Your task to perform on an android device: What's the news in Sri Lanka? Image 0: 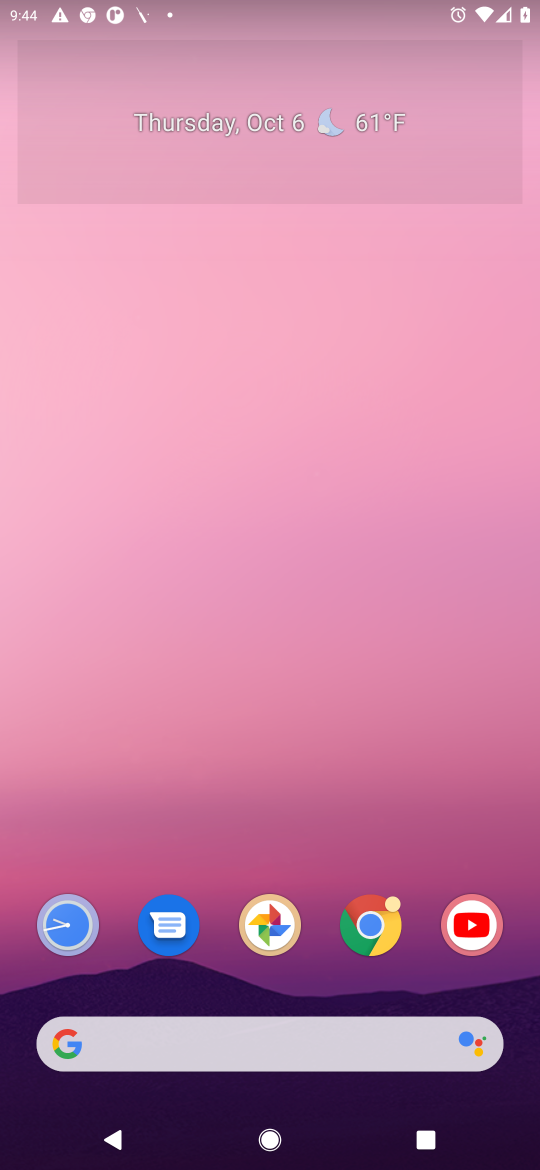
Step 0: click (372, 942)
Your task to perform on an android device: What's the news in Sri Lanka? Image 1: 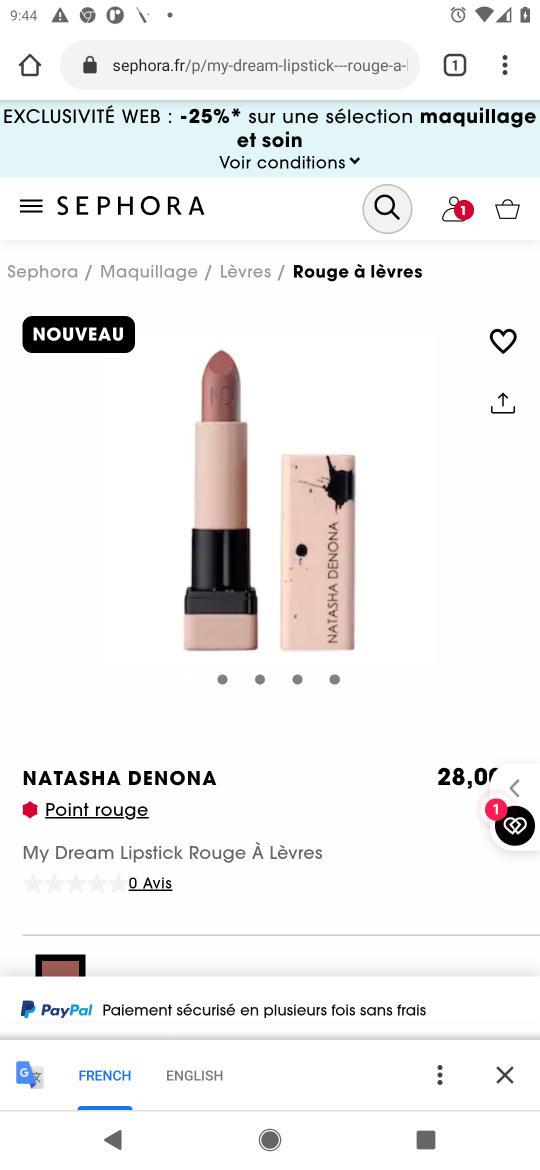
Step 1: click (295, 48)
Your task to perform on an android device: What's the news in Sri Lanka? Image 2: 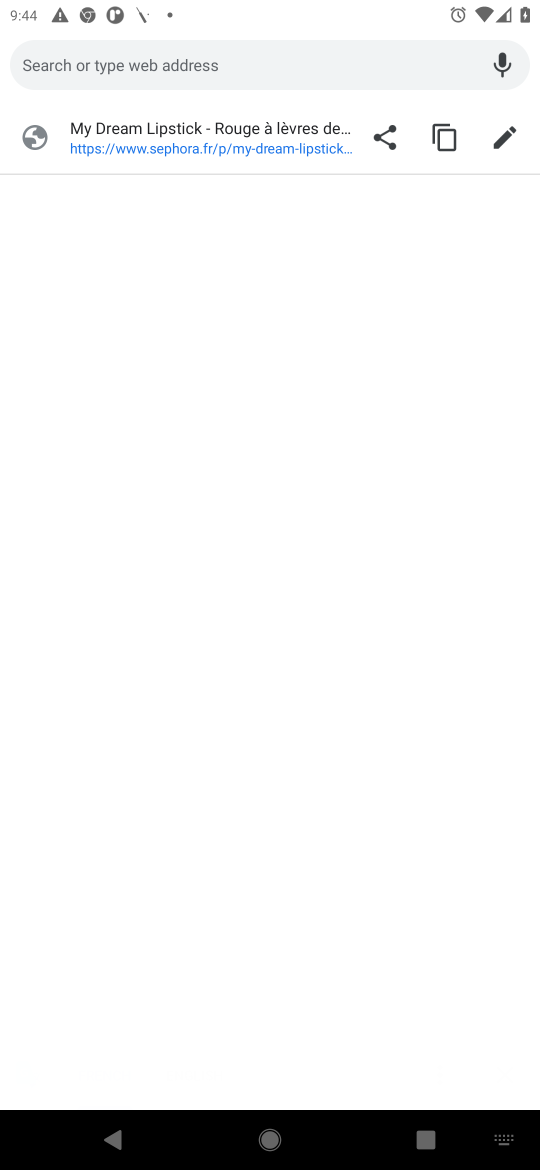
Step 2: type "What's the news in Sri Lanka?"
Your task to perform on an android device: What's the news in Sri Lanka? Image 3: 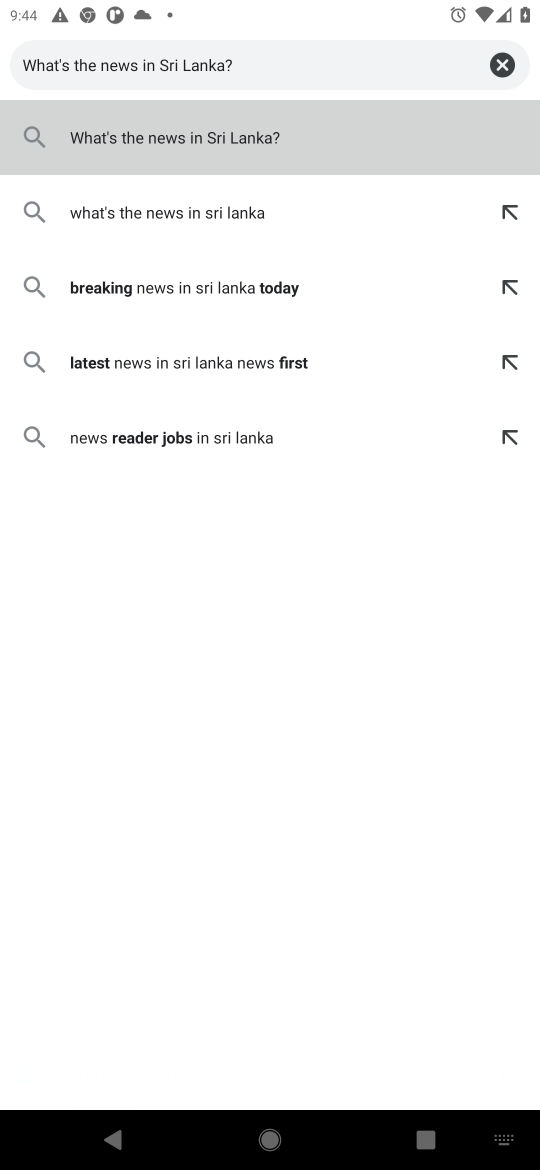
Step 3: click (164, 129)
Your task to perform on an android device: What's the news in Sri Lanka? Image 4: 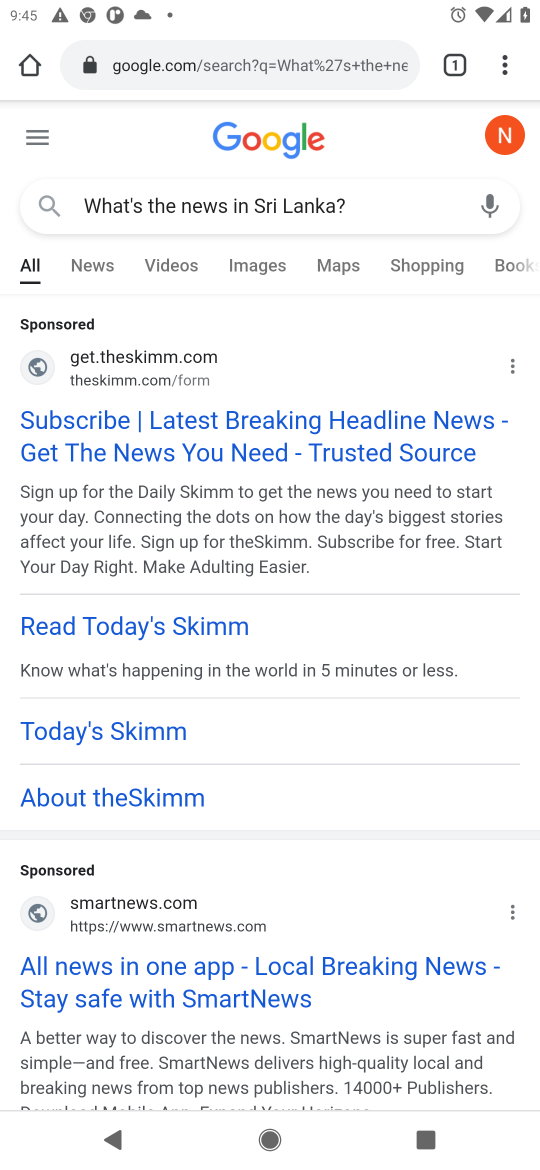
Step 4: drag from (112, 832) to (201, 115)
Your task to perform on an android device: What's the news in Sri Lanka? Image 5: 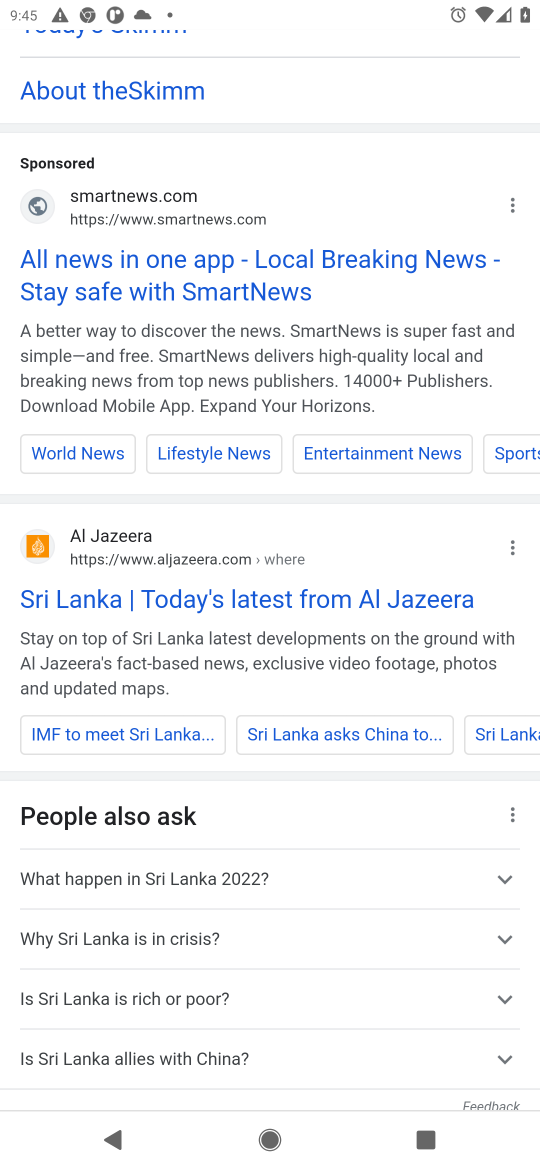
Step 5: click (152, 618)
Your task to perform on an android device: What's the news in Sri Lanka? Image 6: 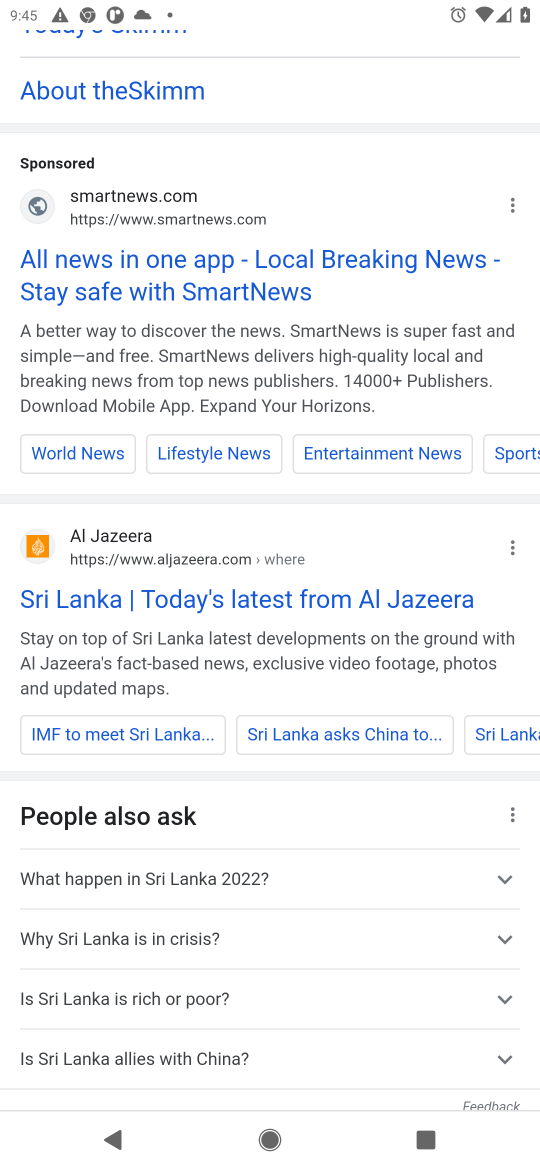
Step 6: click (73, 592)
Your task to perform on an android device: What's the news in Sri Lanka? Image 7: 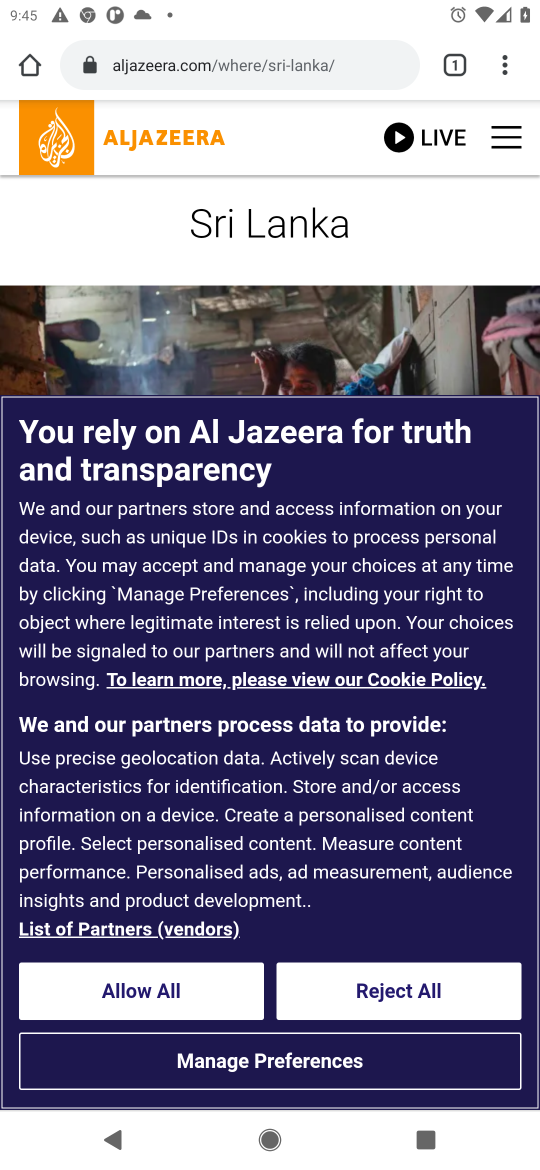
Step 7: click (133, 1002)
Your task to perform on an android device: What's the news in Sri Lanka? Image 8: 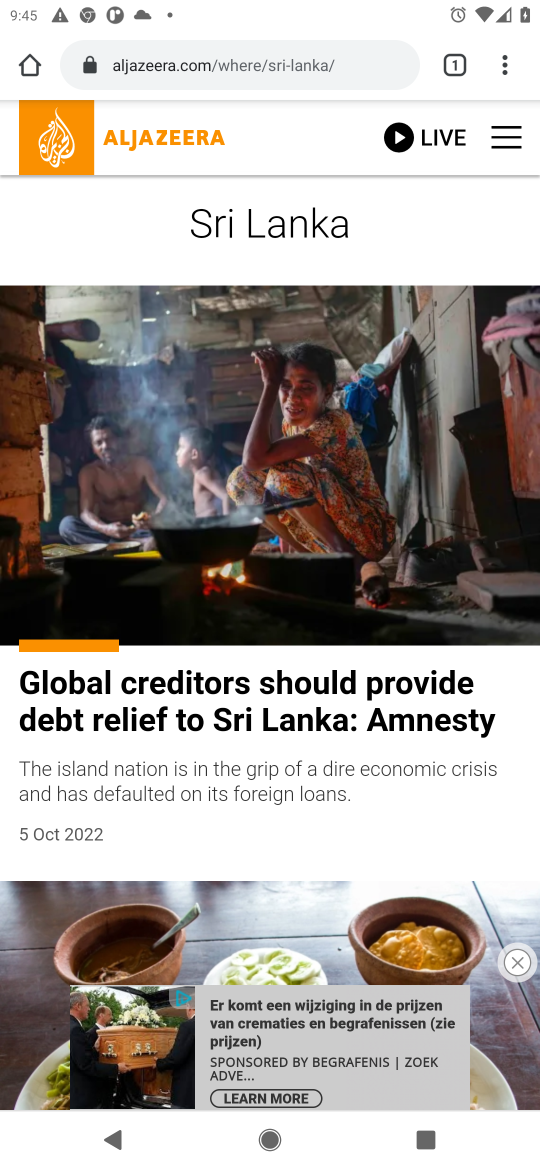
Step 8: task complete